Your task to perform on an android device: Open CNN.com Image 0: 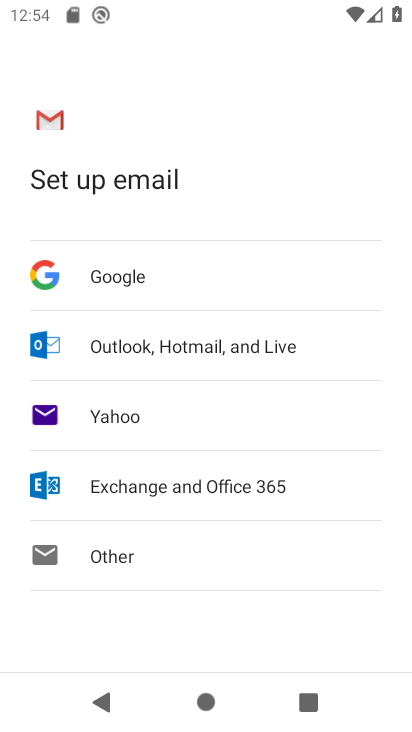
Step 0: press home button
Your task to perform on an android device: Open CNN.com Image 1: 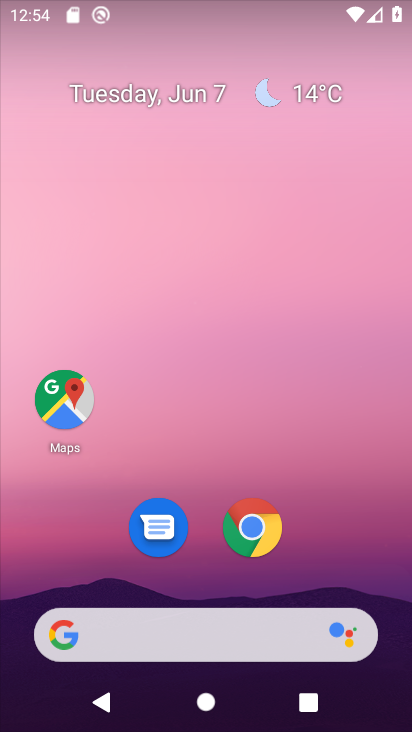
Step 1: click (250, 531)
Your task to perform on an android device: Open CNN.com Image 2: 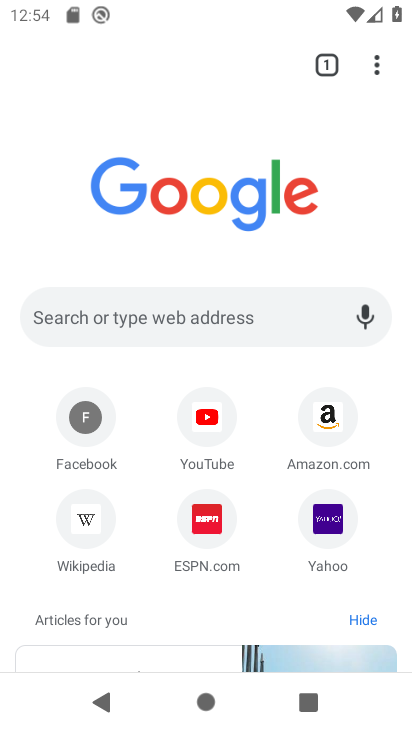
Step 2: click (162, 315)
Your task to perform on an android device: Open CNN.com Image 3: 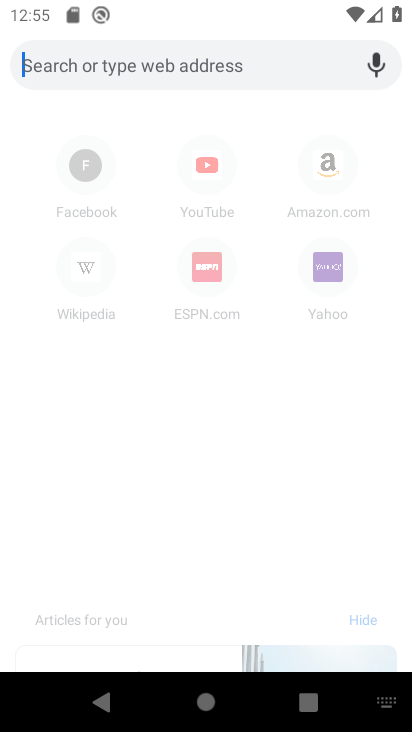
Step 3: type "CNN.com"
Your task to perform on an android device: Open CNN.com Image 4: 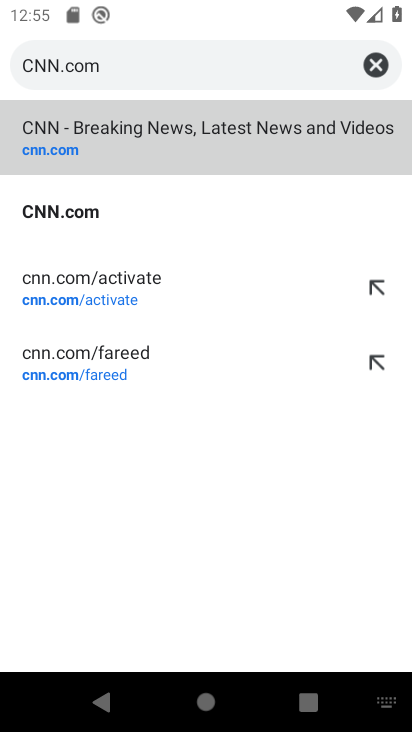
Step 4: click (122, 150)
Your task to perform on an android device: Open CNN.com Image 5: 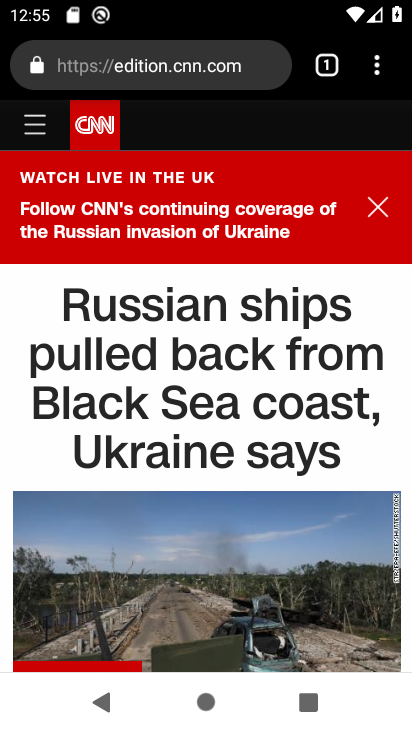
Step 5: task complete